Your task to perform on an android device: Open the map Image 0: 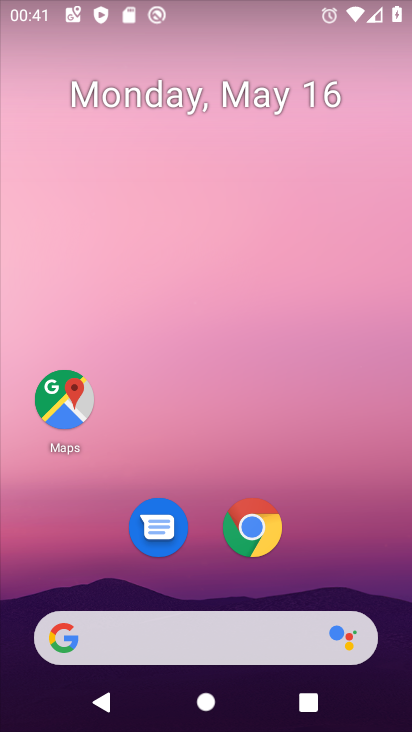
Step 0: click (67, 393)
Your task to perform on an android device: Open the map Image 1: 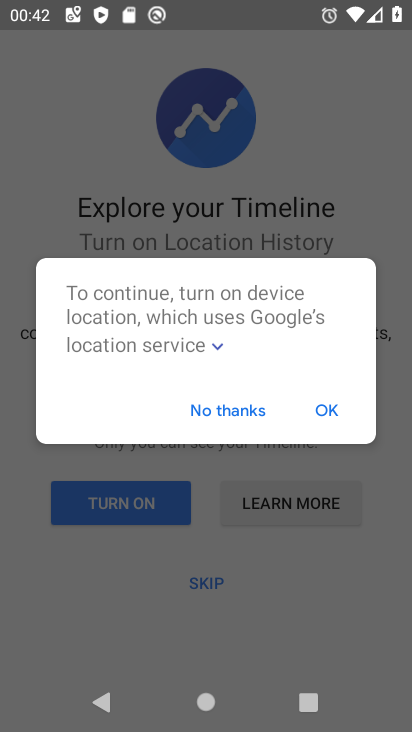
Step 1: press back button
Your task to perform on an android device: Open the map Image 2: 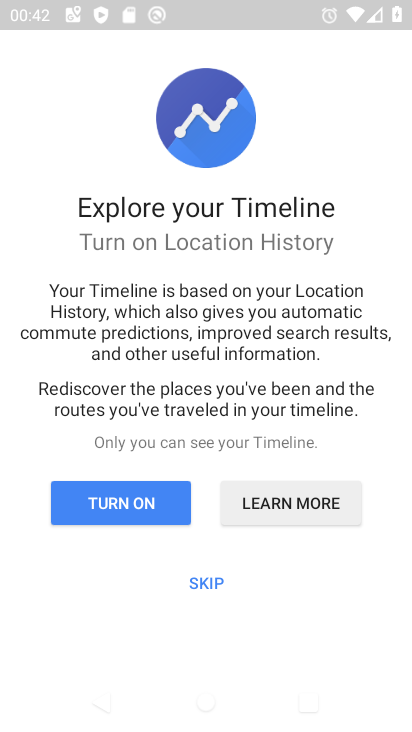
Step 2: press back button
Your task to perform on an android device: Open the map Image 3: 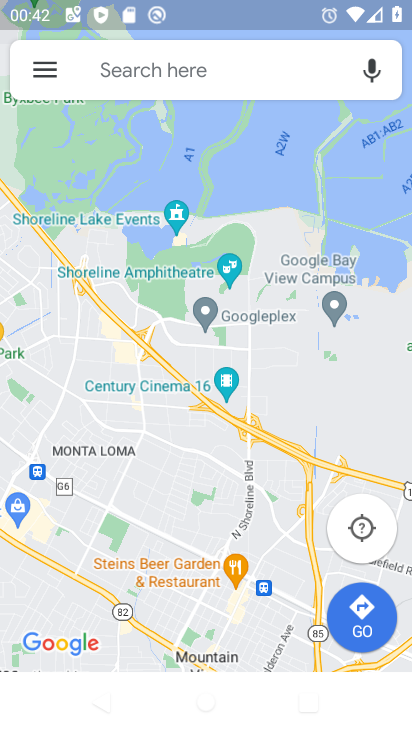
Step 3: click (247, 79)
Your task to perform on an android device: Open the map Image 4: 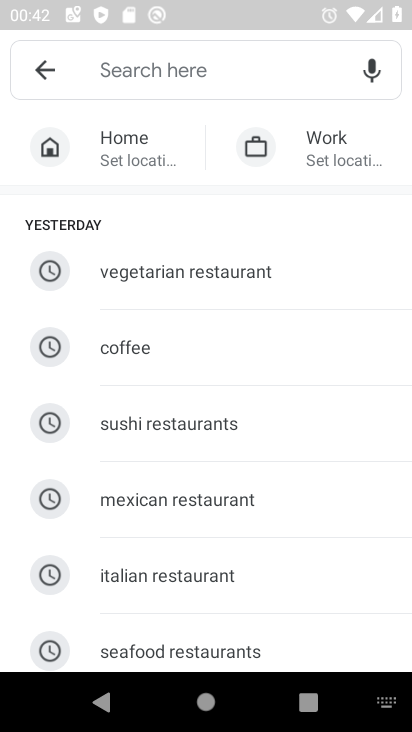
Step 4: task complete